Your task to perform on an android device: open device folders in google photos Image 0: 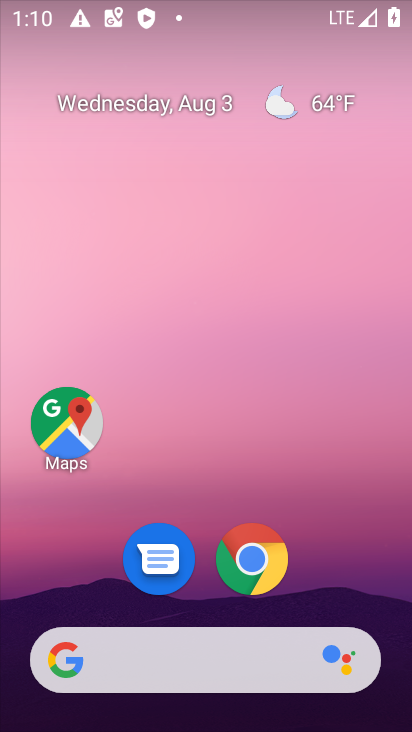
Step 0: drag from (210, 615) to (247, 265)
Your task to perform on an android device: open device folders in google photos Image 1: 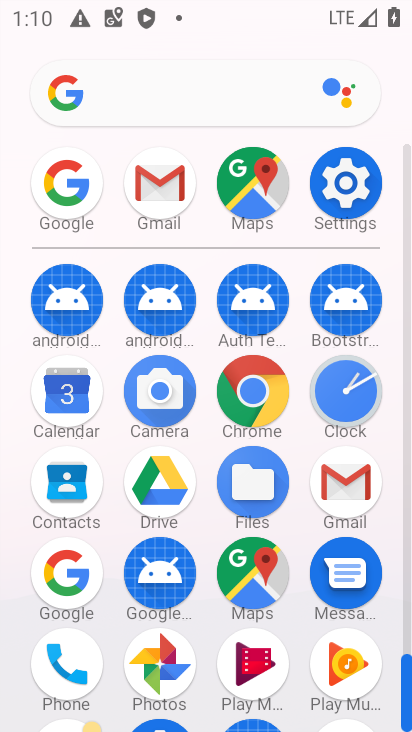
Step 1: click (164, 664)
Your task to perform on an android device: open device folders in google photos Image 2: 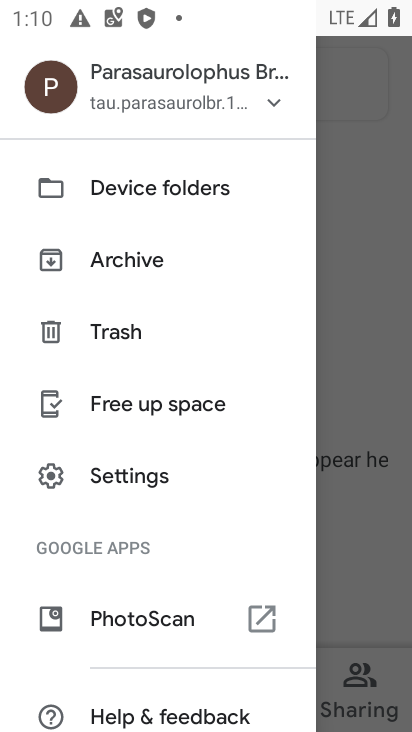
Step 2: drag from (150, 683) to (167, 729)
Your task to perform on an android device: open device folders in google photos Image 3: 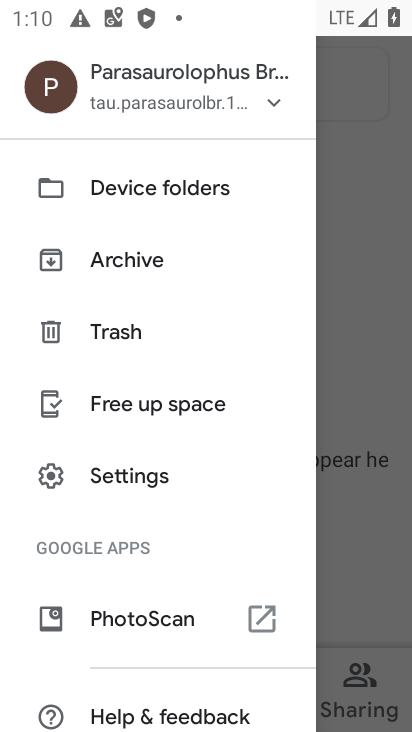
Step 3: click (129, 190)
Your task to perform on an android device: open device folders in google photos Image 4: 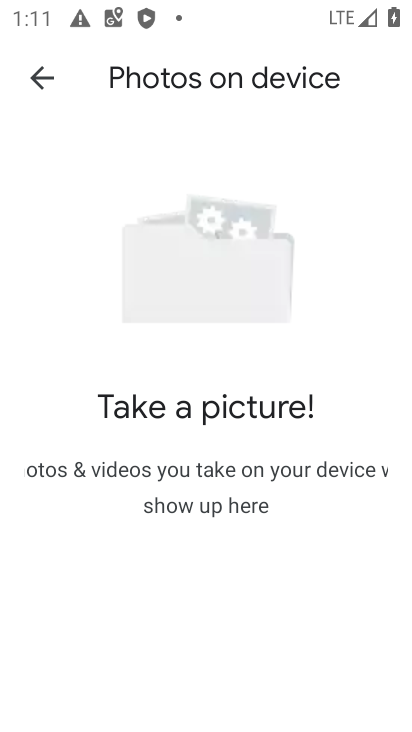
Step 4: task complete